Your task to perform on an android device: turn on bluetooth scan Image 0: 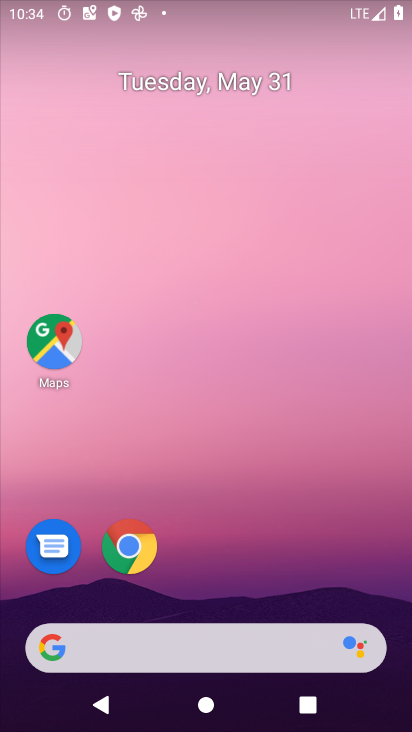
Step 0: drag from (286, 514) to (265, 18)
Your task to perform on an android device: turn on bluetooth scan Image 1: 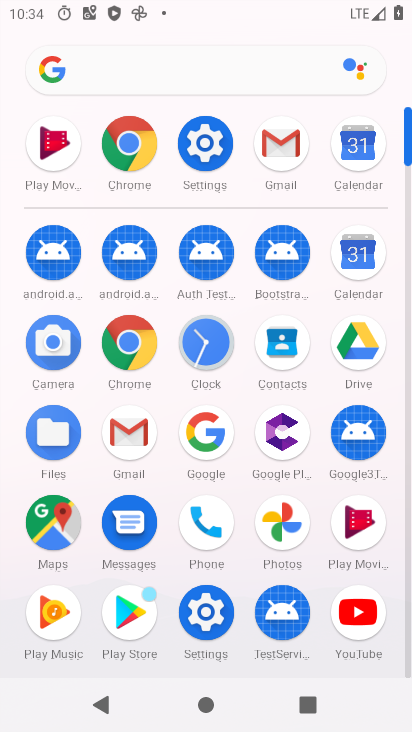
Step 1: click (204, 130)
Your task to perform on an android device: turn on bluetooth scan Image 2: 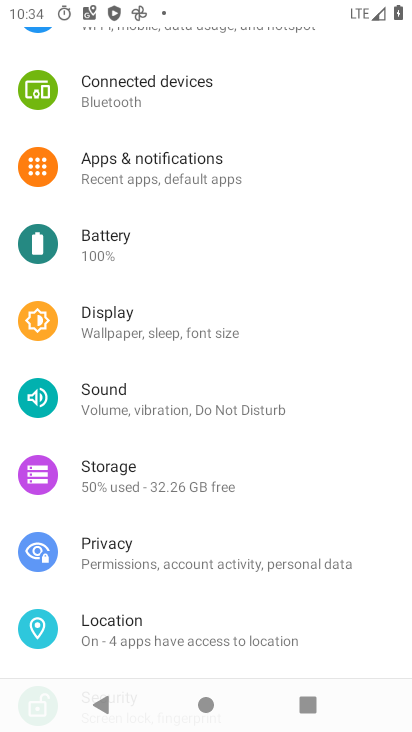
Step 2: drag from (212, 136) to (192, 507)
Your task to perform on an android device: turn on bluetooth scan Image 3: 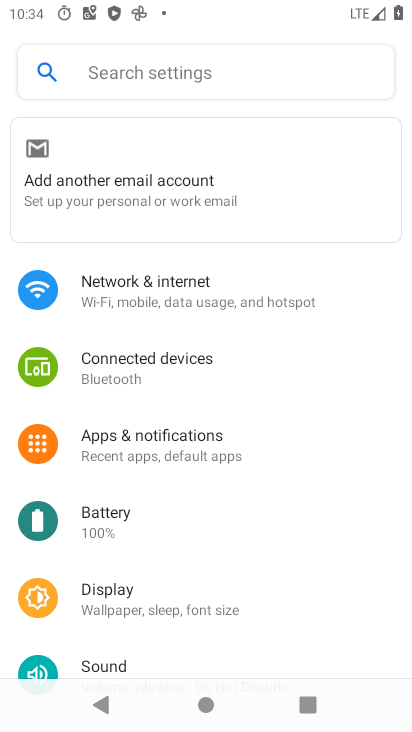
Step 3: drag from (235, 515) to (276, 126)
Your task to perform on an android device: turn on bluetooth scan Image 4: 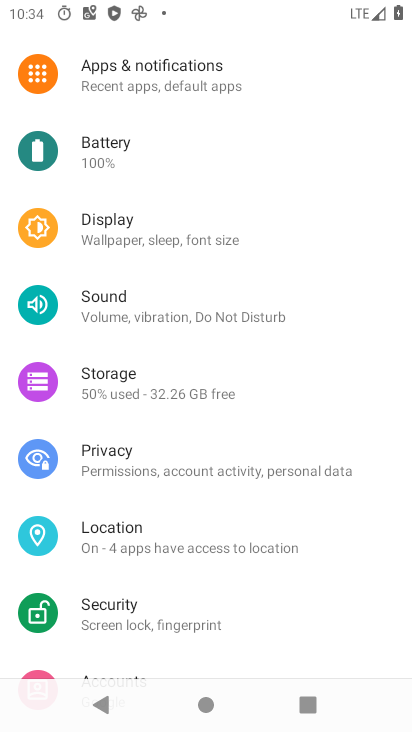
Step 4: drag from (278, 121) to (252, 547)
Your task to perform on an android device: turn on bluetooth scan Image 5: 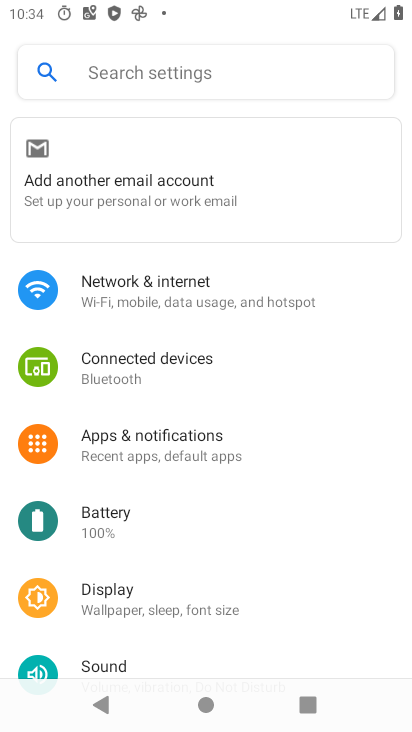
Step 5: click (279, 68)
Your task to perform on an android device: turn on bluetooth scan Image 6: 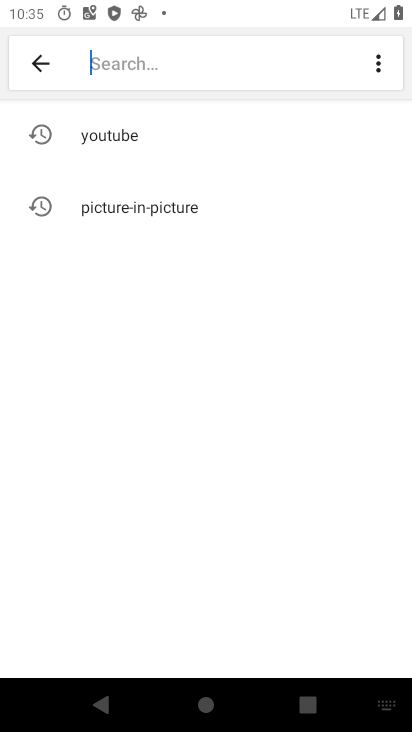
Step 6: type "Bluetooth"
Your task to perform on an android device: turn on bluetooth scan Image 7: 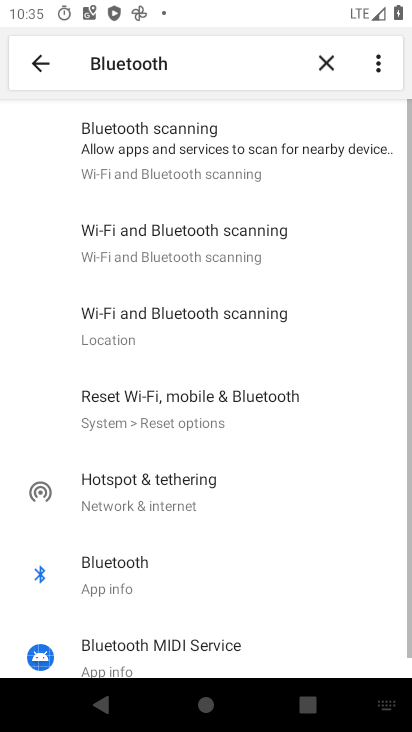
Step 7: click (204, 42)
Your task to perform on an android device: turn on bluetooth scan Image 8: 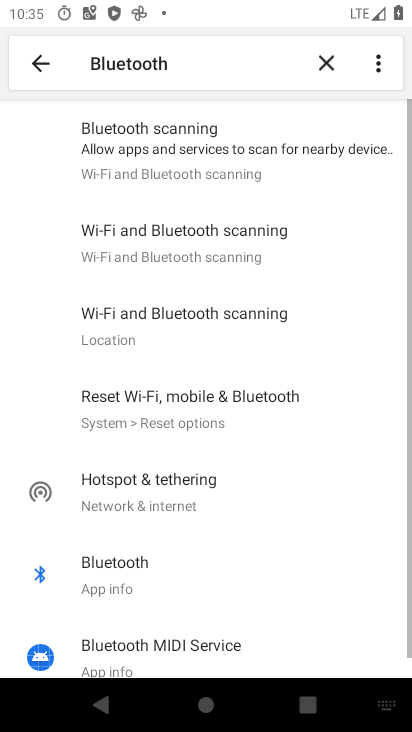
Step 8: click (204, 42)
Your task to perform on an android device: turn on bluetooth scan Image 9: 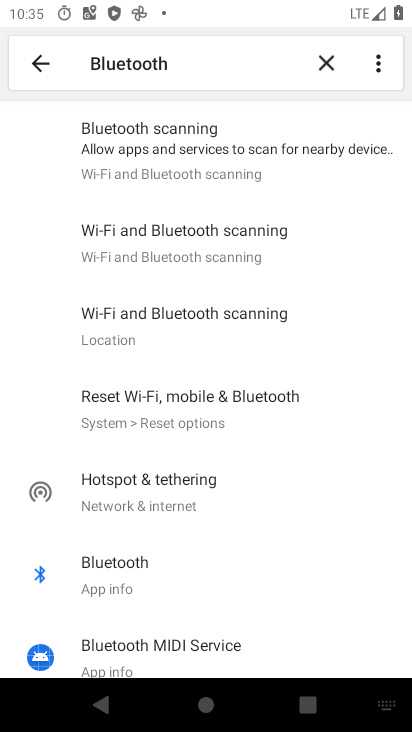
Step 9: click (216, 157)
Your task to perform on an android device: turn on bluetooth scan Image 10: 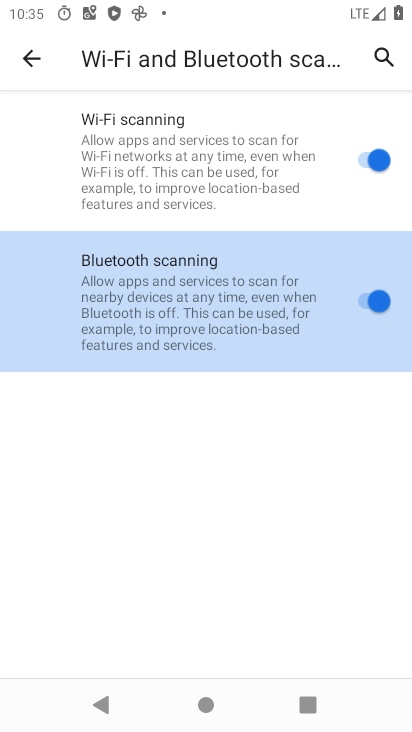
Step 10: task complete